Your task to perform on an android device: show emergency info Image 0: 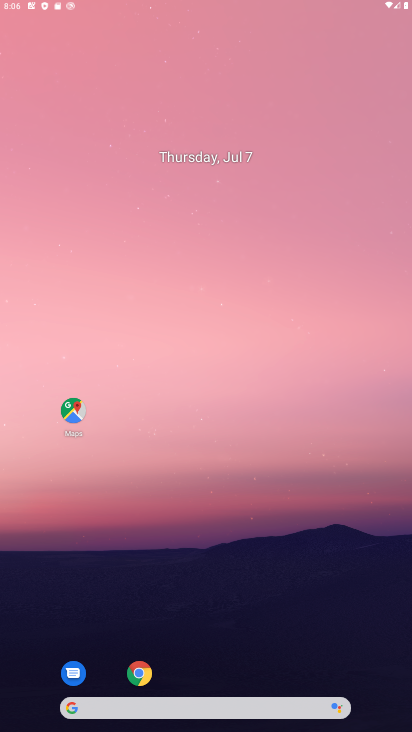
Step 0: press home button
Your task to perform on an android device: show emergency info Image 1: 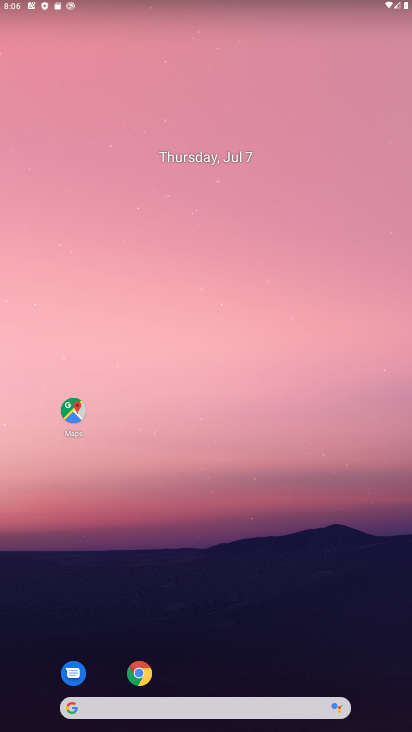
Step 1: drag from (265, 634) to (235, 0)
Your task to perform on an android device: show emergency info Image 2: 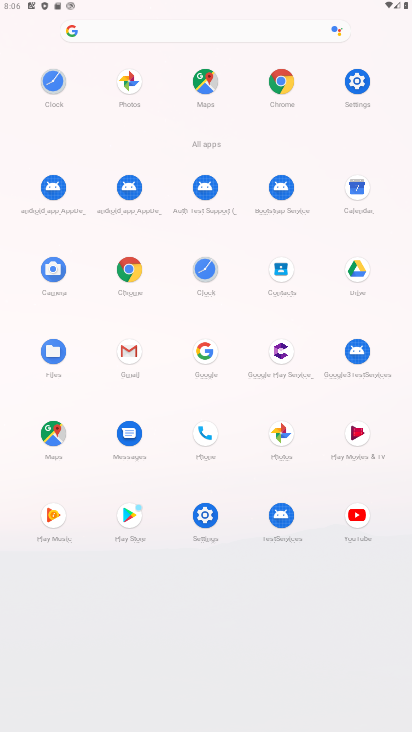
Step 2: click (358, 78)
Your task to perform on an android device: show emergency info Image 3: 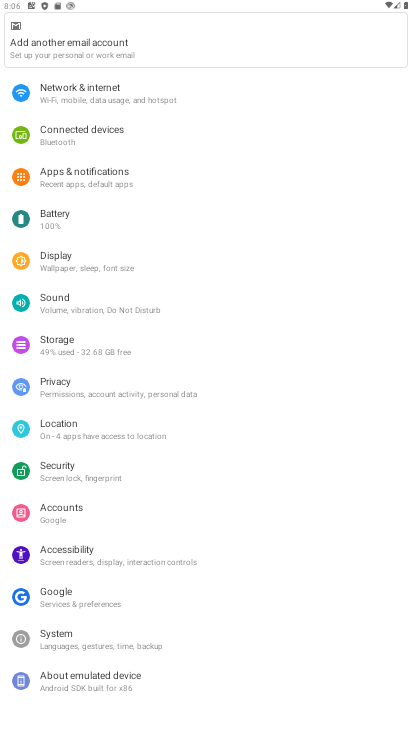
Step 3: drag from (284, 639) to (118, 0)
Your task to perform on an android device: show emergency info Image 4: 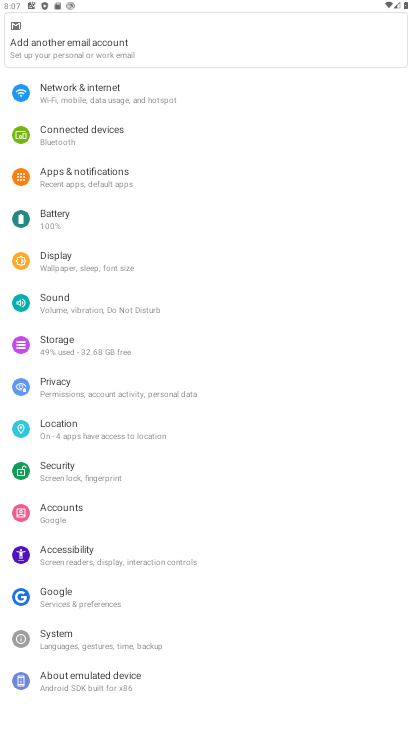
Step 4: click (63, 681)
Your task to perform on an android device: show emergency info Image 5: 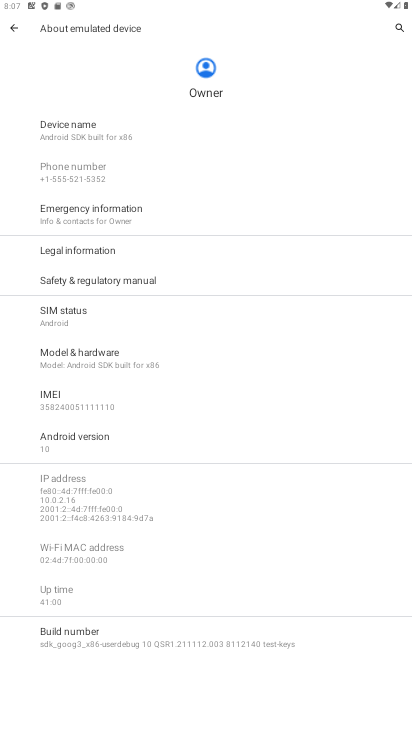
Step 5: click (91, 211)
Your task to perform on an android device: show emergency info Image 6: 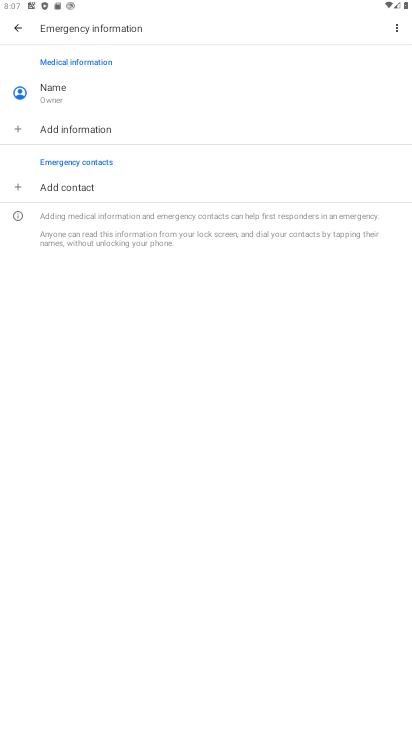
Step 6: task complete